Your task to perform on an android device: Go to Maps Image 0: 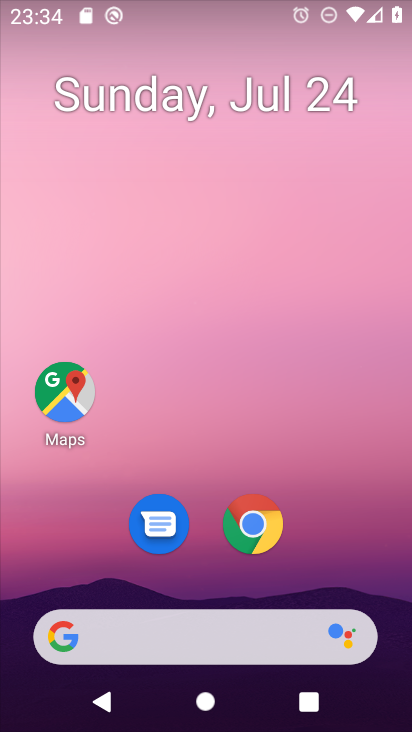
Step 0: click (64, 394)
Your task to perform on an android device: Go to Maps Image 1: 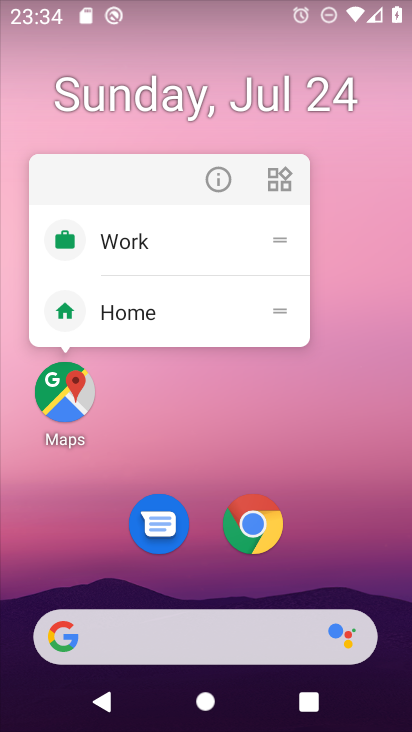
Step 1: click (62, 397)
Your task to perform on an android device: Go to Maps Image 2: 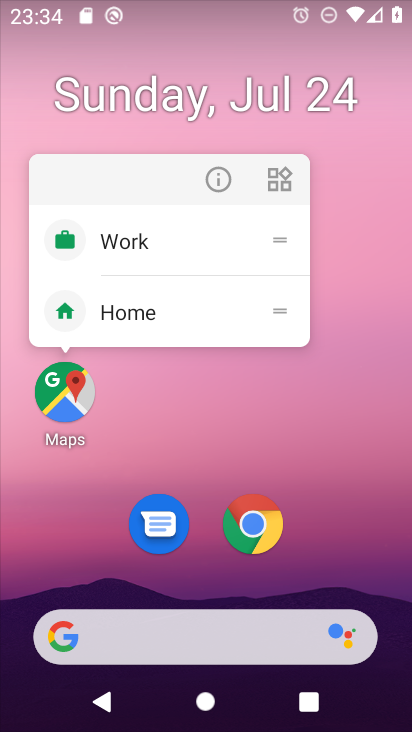
Step 2: click (62, 399)
Your task to perform on an android device: Go to Maps Image 3: 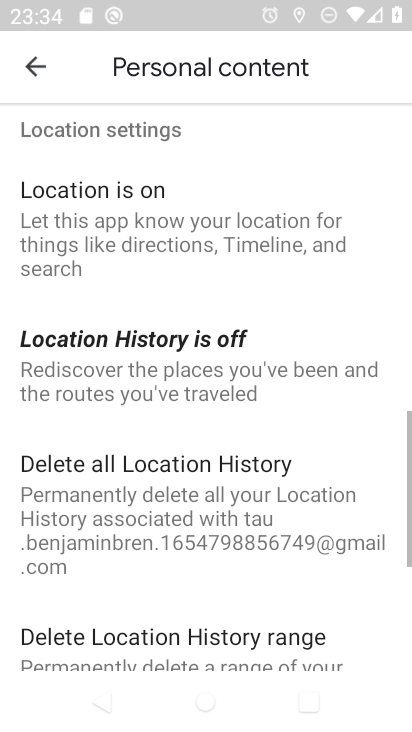
Step 3: click (37, 64)
Your task to perform on an android device: Go to Maps Image 4: 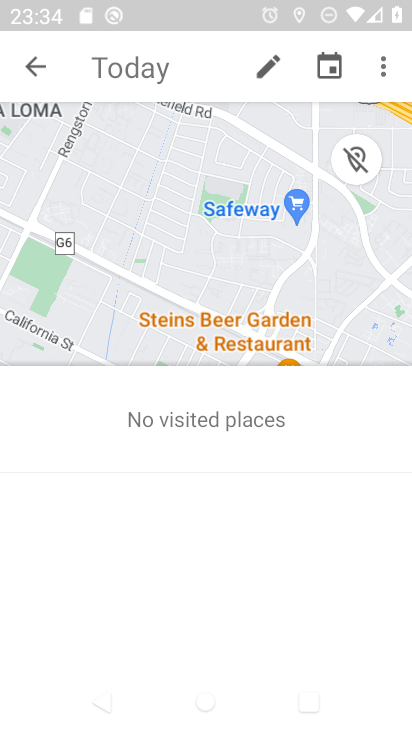
Step 4: click (39, 72)
Your task to perform on an android device: Go to Maps Image 5: 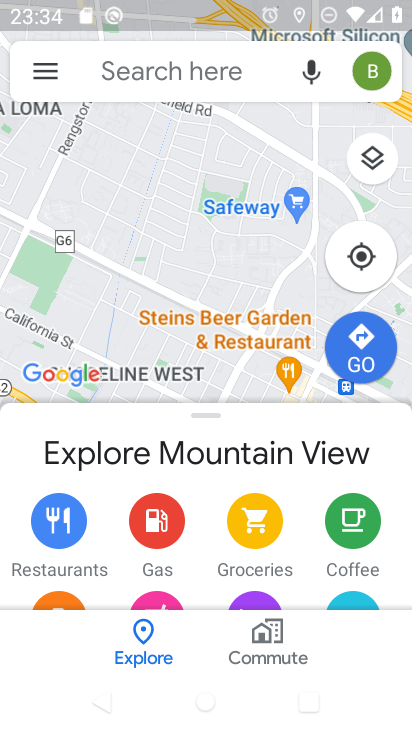
Step 5: task complete